Your task to perform on an android device: Search for logitech g502 on target.com, select the first entry, and add it to the cart. Image 0: 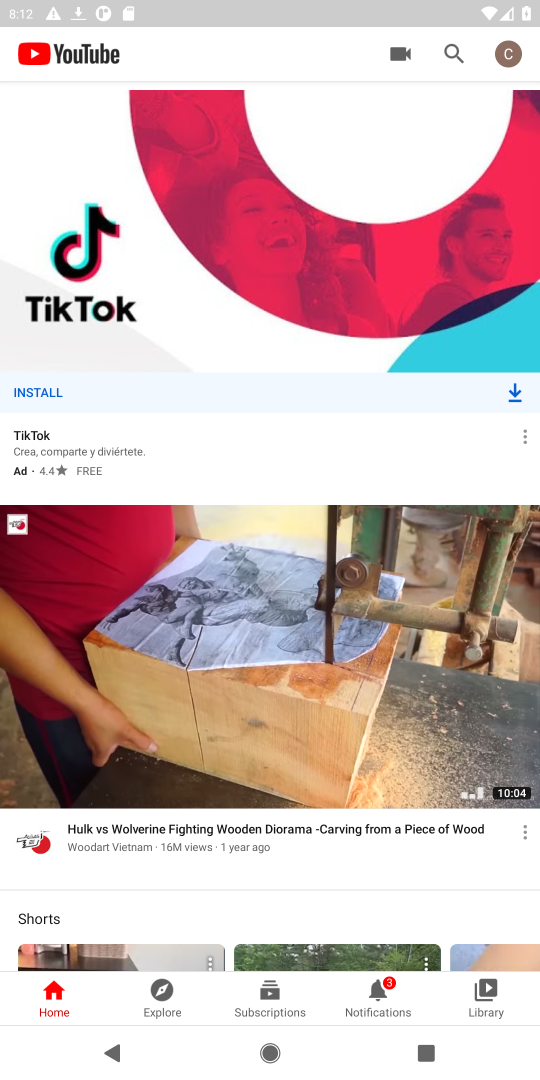
Step 0: press home button
Your task to perform on an android device: Search for logitech g502 on target.com, select the first entry, and add it to the cart. Image 1: 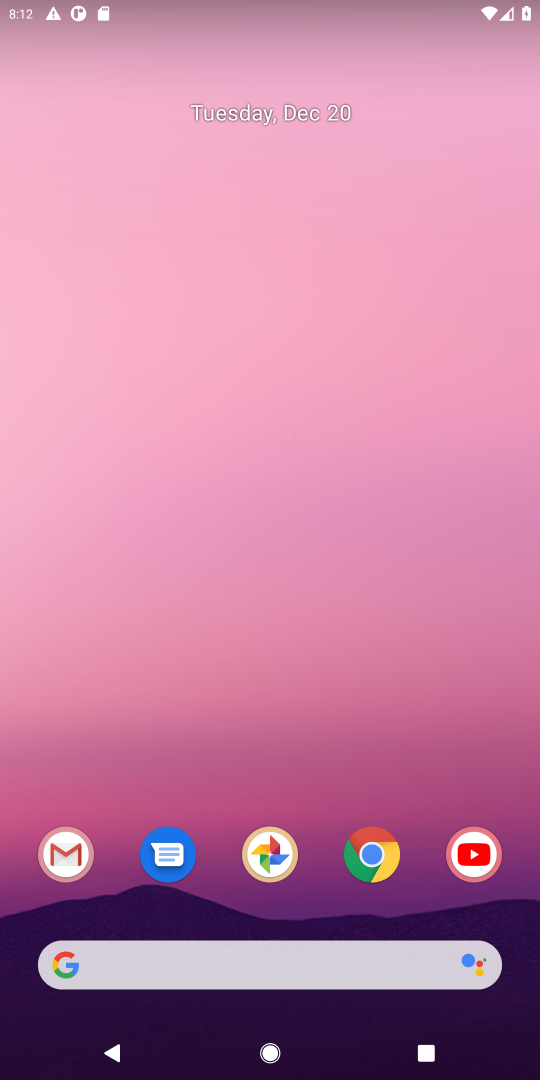
Step 1: click (381, 855)
Your task to perform on an android device: Search for logitech g502 on target.com, select the first entry, and add it to the cart. Image 2: 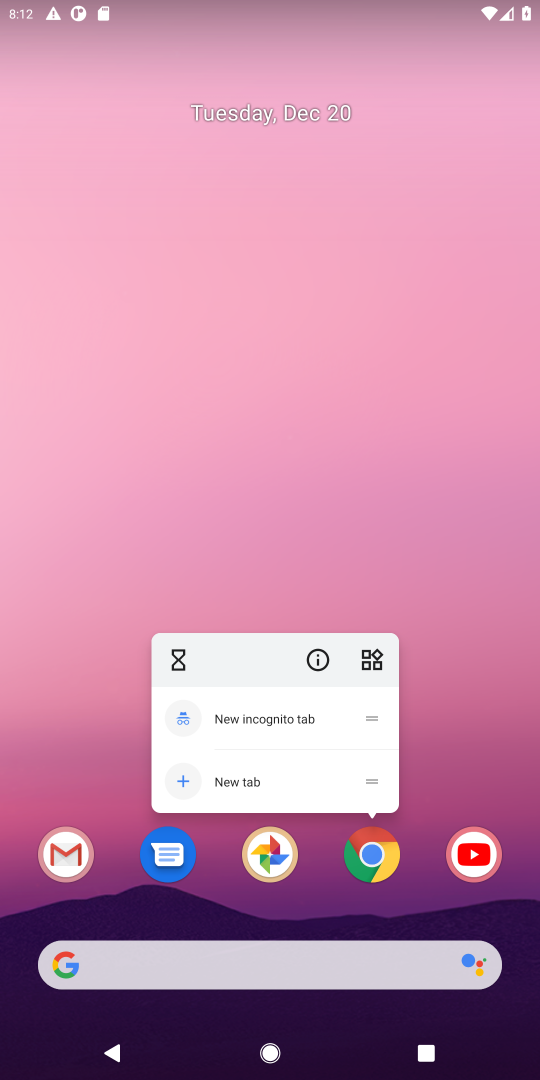
Step 2: click (371, 865)
Your task to perform on an android device: Search for logitech g502 on target.com, select the first entry, and add it to the cart. Image 3: 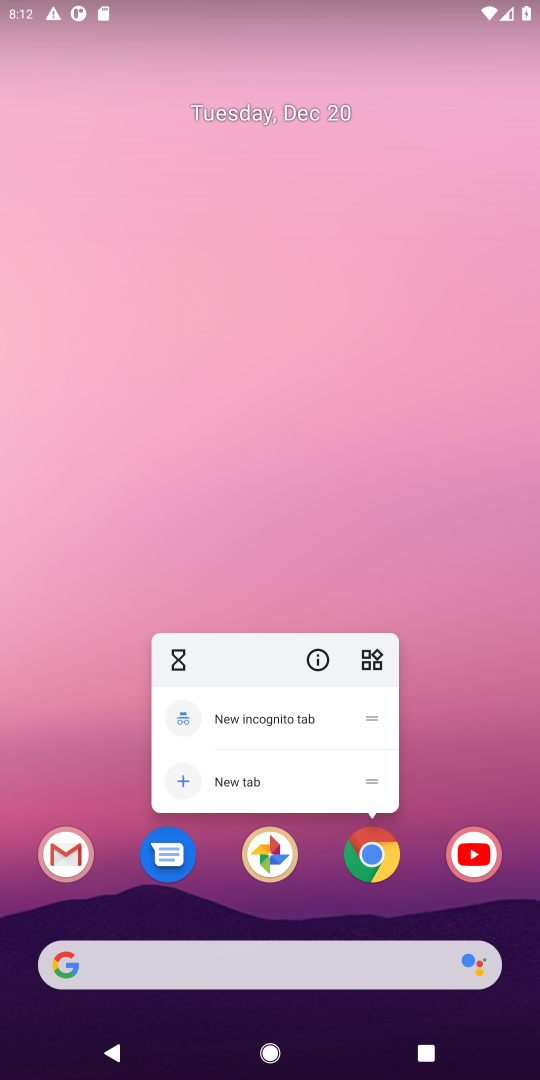
Step 3: click (385, 856)
Your task to perform on an android device: Search for logitech g502 on target.com, select the first entry, and add it to the cart. Image 4: 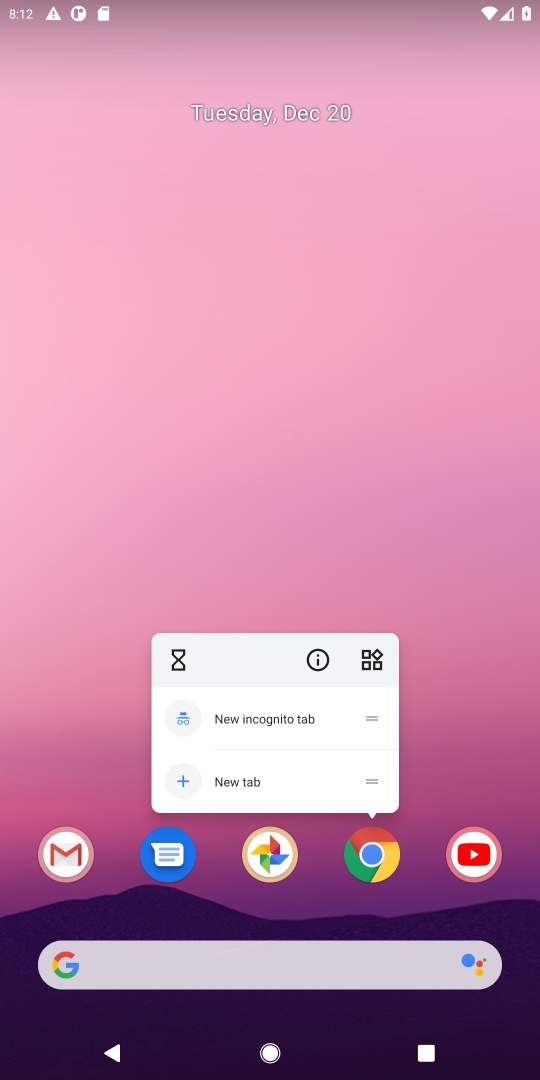
Step 4: click (373, 866)
Your task to perform on an android device: Search for logitech g502 on target.com, select the first entry, and add it to the cart. Image 5: 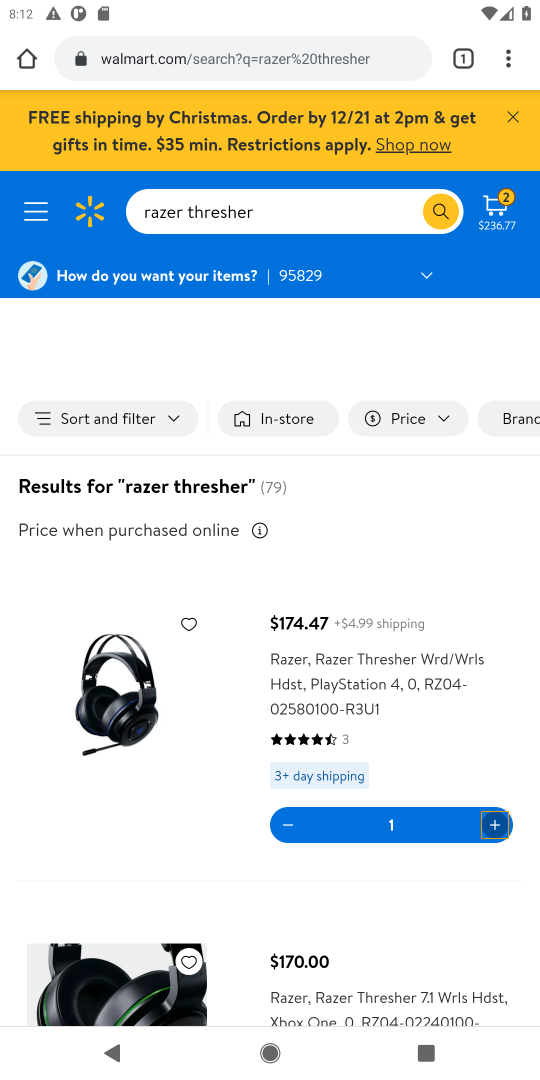
Step 5: click (214, 55)
Your task to perform on an android device: Search for logitech g502 on target.com, select the first entry, and add it to the cart. Image 6: 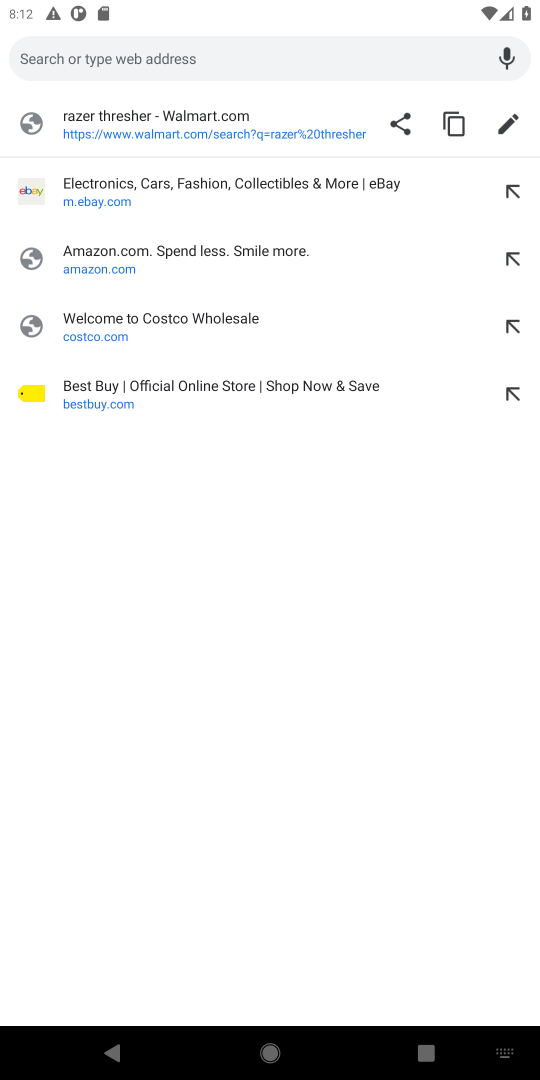
Step 6: type "target.com"
Your task to perform on an android device: Search for logitech g502 on target.com, select the first entry, and add it to the cart. Image 7: 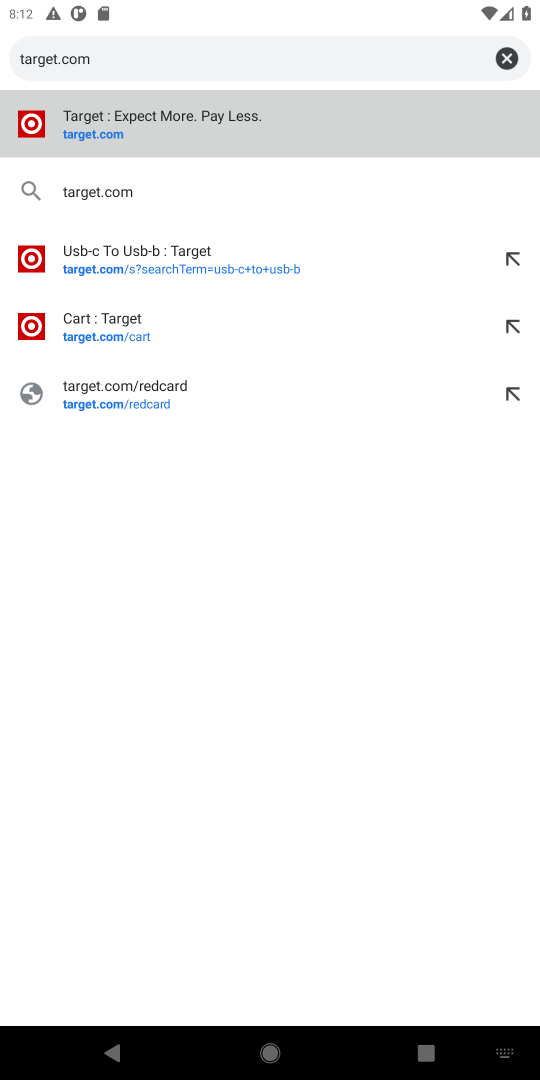
Step 7: click (105, 142)
Your task to perform on an android device: Search for logitech g502 on target.com, select the first entry, and add it to the cart. Image 8: 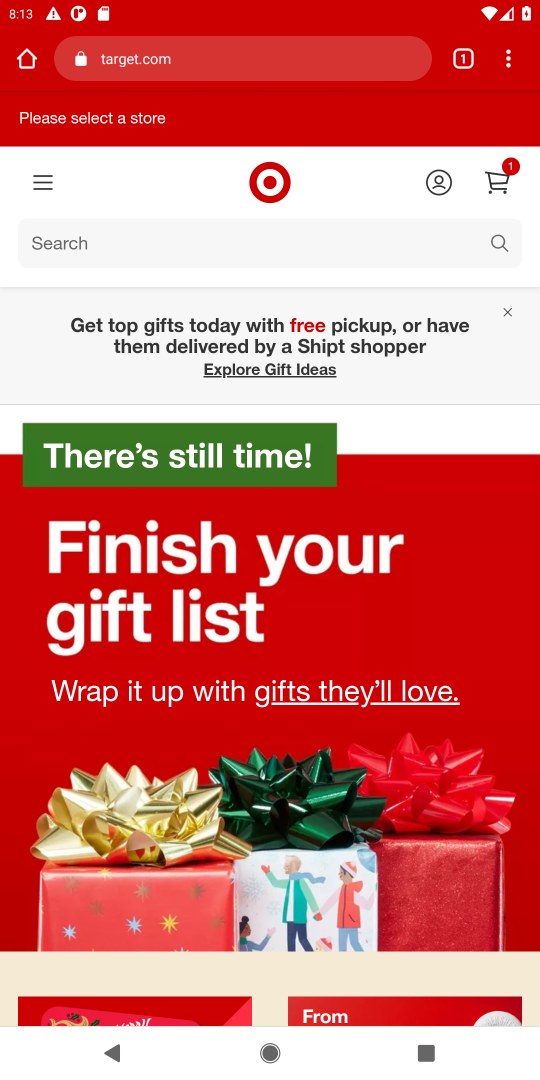
Step 8: click (77, 236)
Your task to perform on an android device: Search for logitech g502 on target.com, select the first entry, and add it to the cart. Image 9: 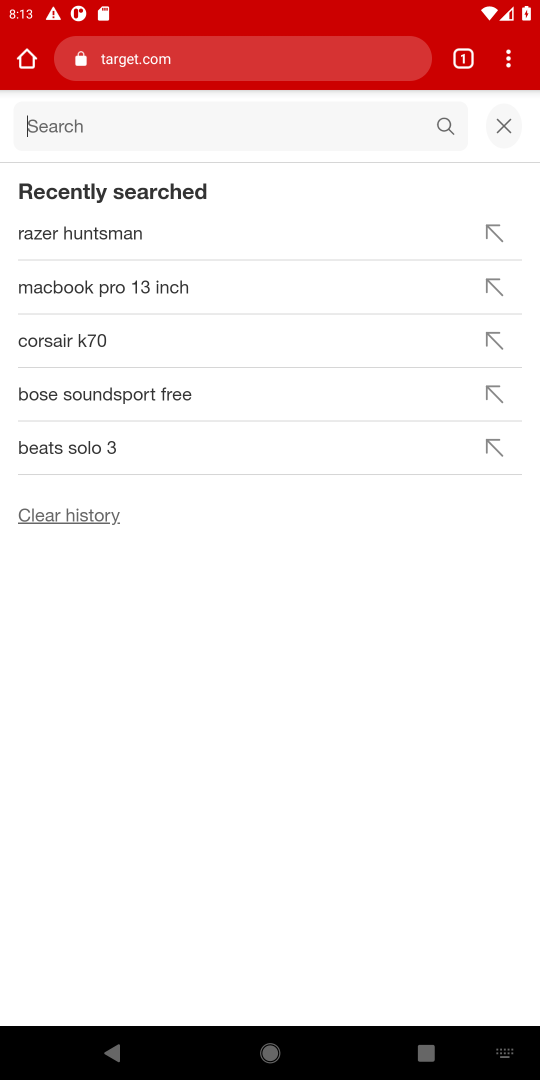
Step 9: type " logitech g502 "
Your task to perform on an android device: Search for logitech g502 on target.com, select the first entry, and add it to the cart. Image 10: 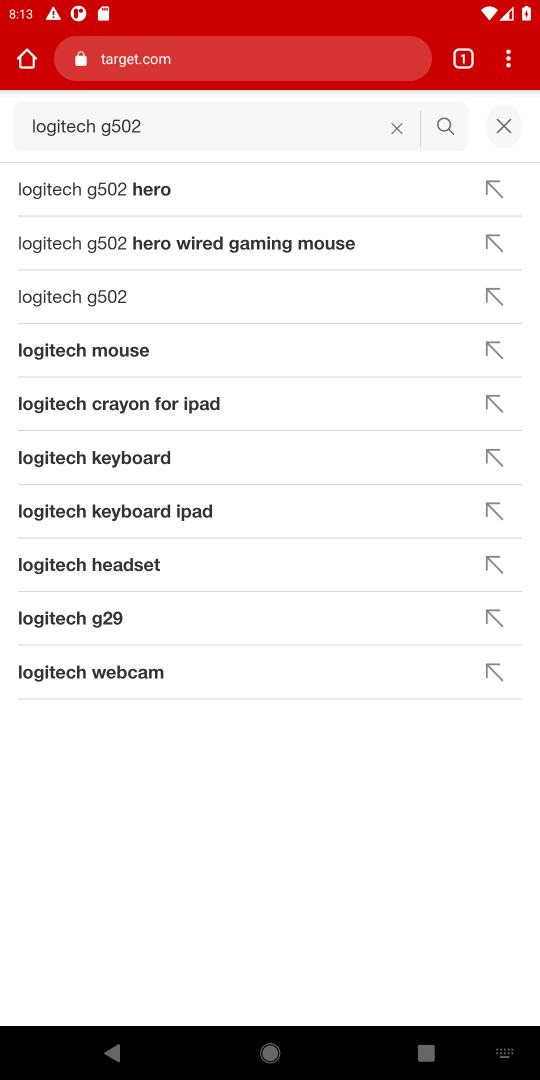
Step 10: click (93, 296)
Your task to perform on an android device: Search for logitech g502 on target.com, select the first entry, and add it to the cart. Image 11: 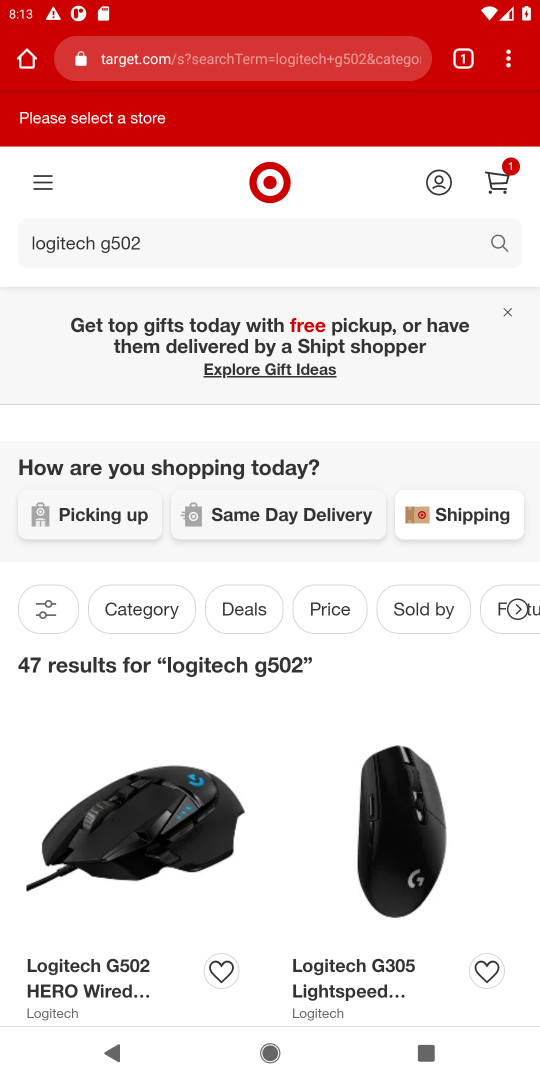
Step 11: drag from (94, 846) to (87, 607)
Your task to perform on an android device: Search for logitech g502 on target.com, select the first entry, and add it to the cart. Image 12: 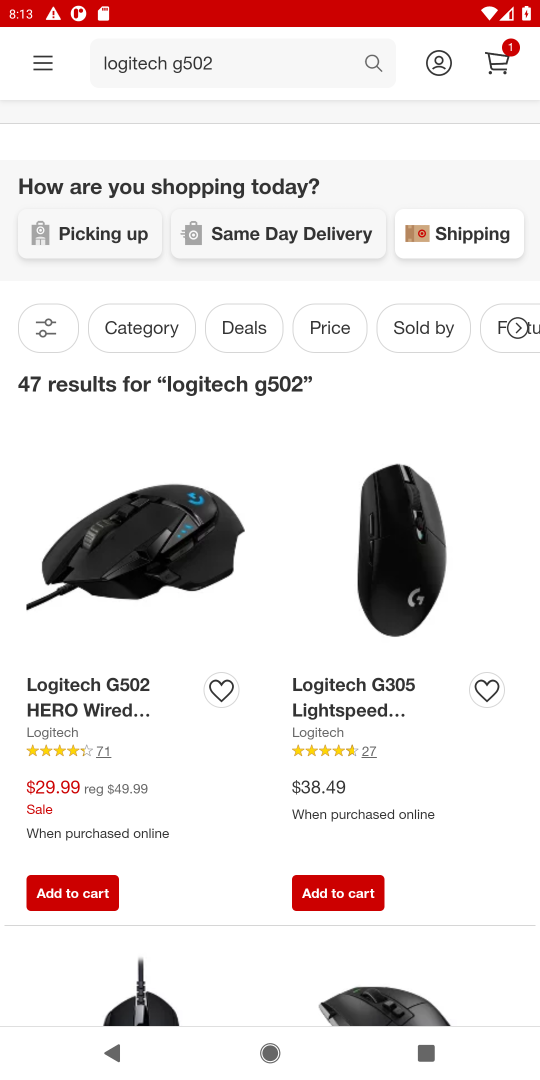
Step 12: click (81, 890)
Your task to perform on an android device: Search for logitech g502 on target.com, select the first entry, and add it to the cart. Image 13: 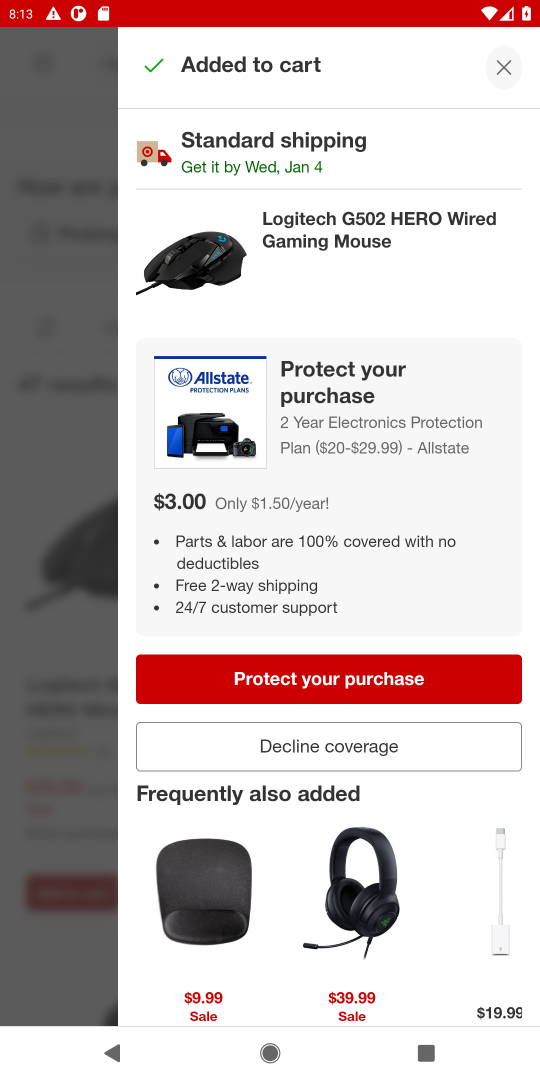
Step 13: click (502, 75)
Your task to perform on an android device: Search for logitech g502 on target.com, select the first entry, and add it to the cart. Image 14: 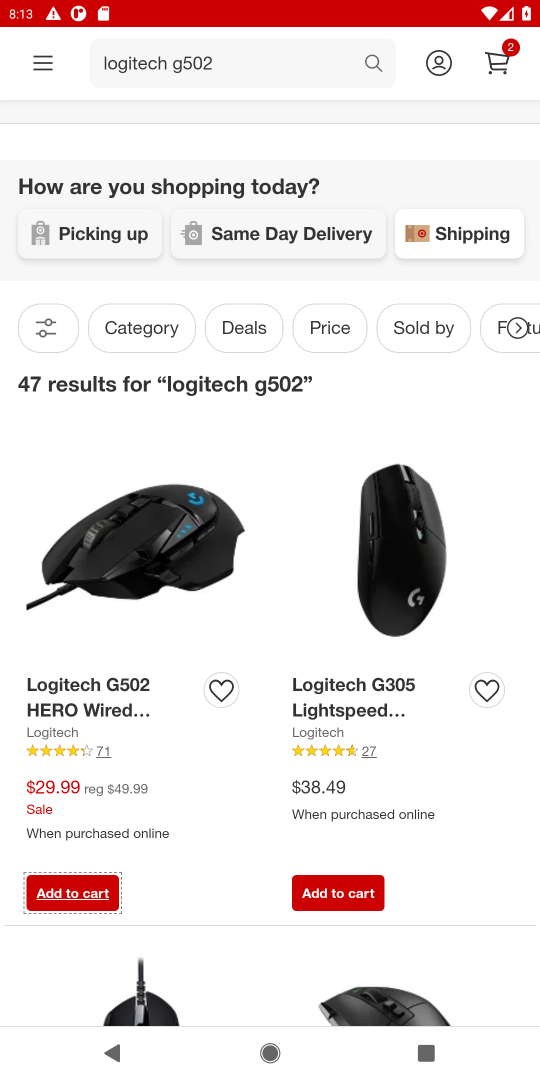
Step 14: task complete